Your task to perform on an android device: set an alarm Image 0: 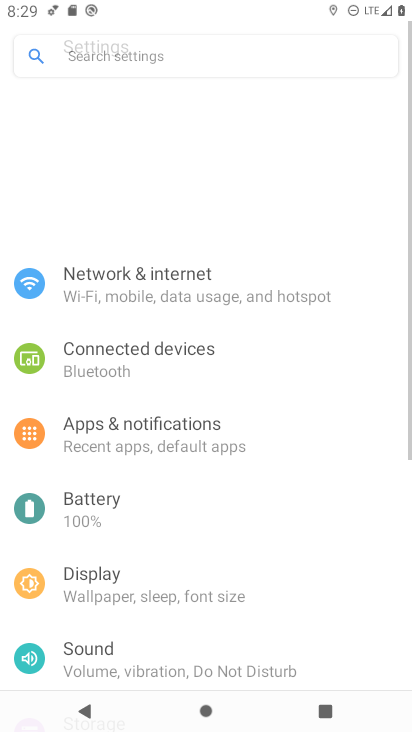
Step 0: drag from (368, 574) to (381, 275)
Your task to perform on an android device: set an alarm Image 1: 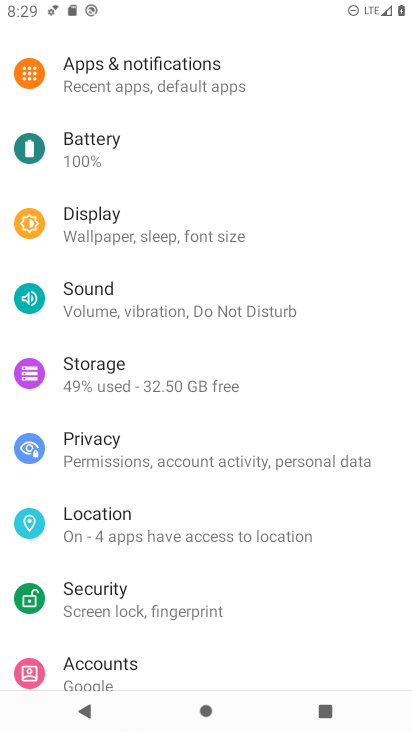
Step 1: press home button
Your task to perform on an android device: set an alarm Image 2: 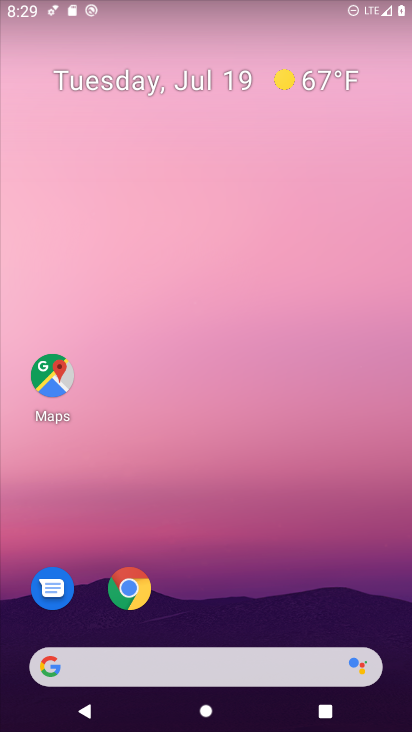
Step 2: drag from (343, 586) to (386, 47)
Your task to perform on an android device: set an alarm Image 3: 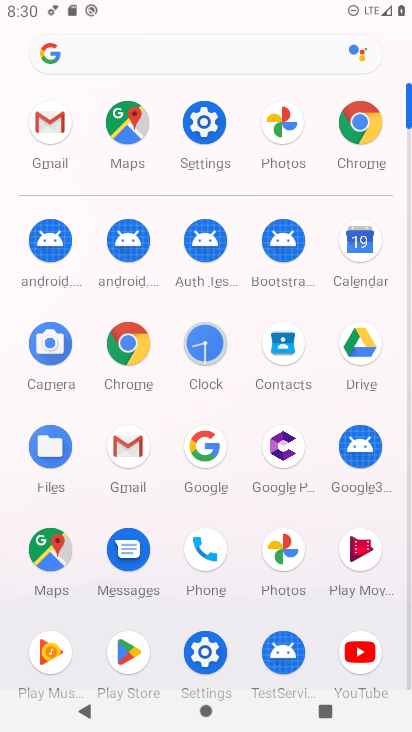
Step 3: click (211, 348)
Your task to perform on an android device: set an alarm Image 4: 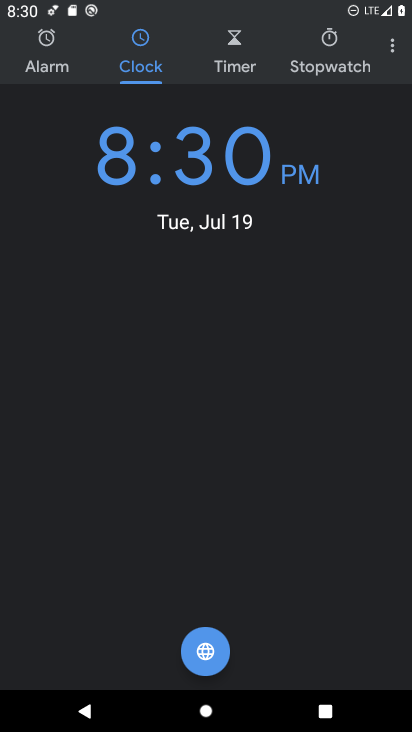
Step 4: click (60, 61)
Your task to perform on an android device: set an alarm Image 5: 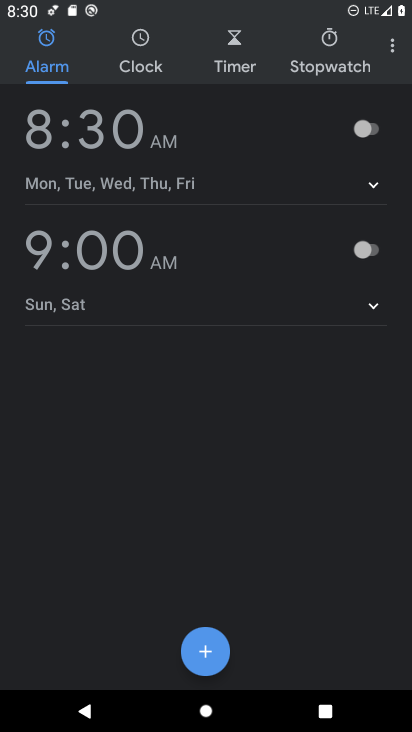
Step 5: click (210, 654)
Your task to perform on an android device: set an alarm Image 6: 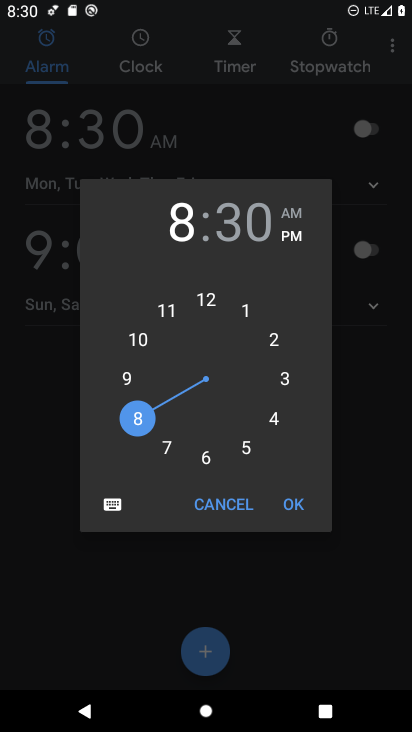
Step 6: click (296, 511)
Your task to perform on an android device: set an alarm Image 7: 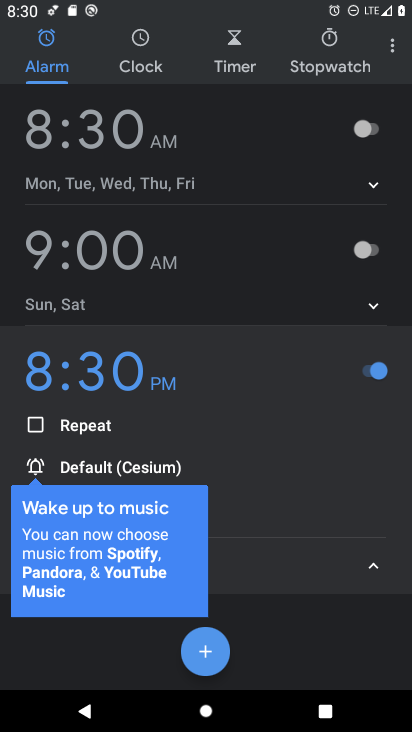
Step 7: task complete